Your task to perform on an android device: Open calendar and show me the third week of next month Image 0: 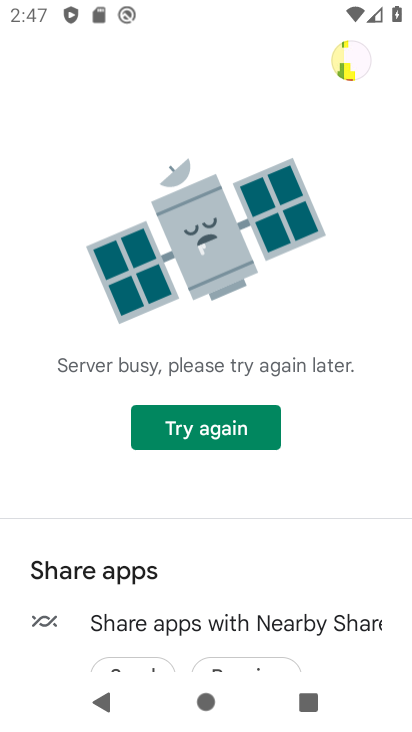
Step 0: press home button
Your task to perform on an android device: Open calendar and show me the third week of next month Image 1: 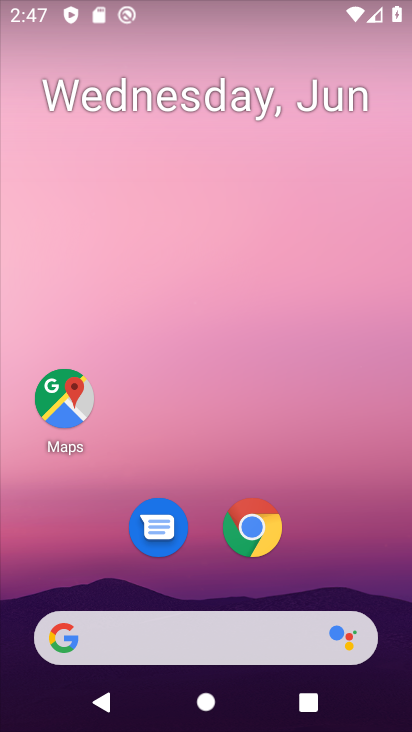
Step 1: drag from (26, 545) to (193, 266)
Your task to perform on an android device: Open calendar and show me the third week of next month Image 2: 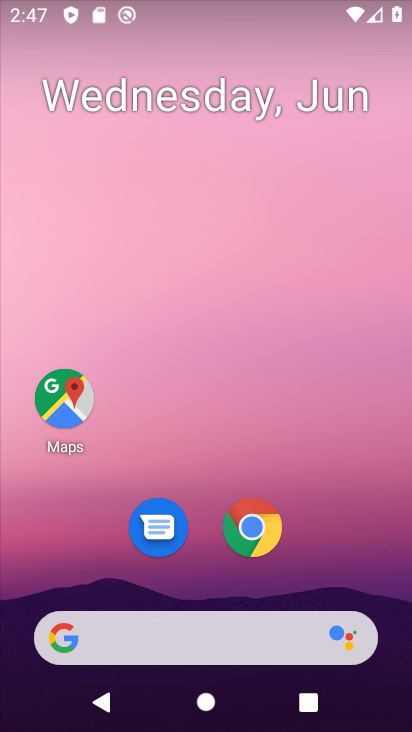
Step 2: drag from (337, 604) to (296, 99)
Your task to perform on an android device: Open calendar and show me the third week of next month Image 3: 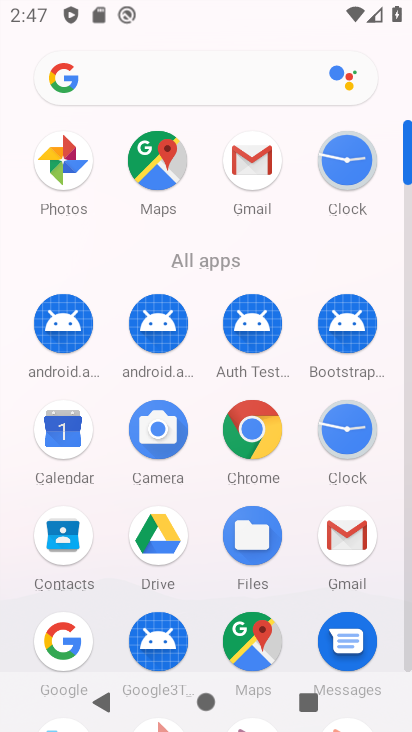
Step 3: click (37, 444)
Your task to perform on an android device: Open calendar and show me the third week of next month Image 4: 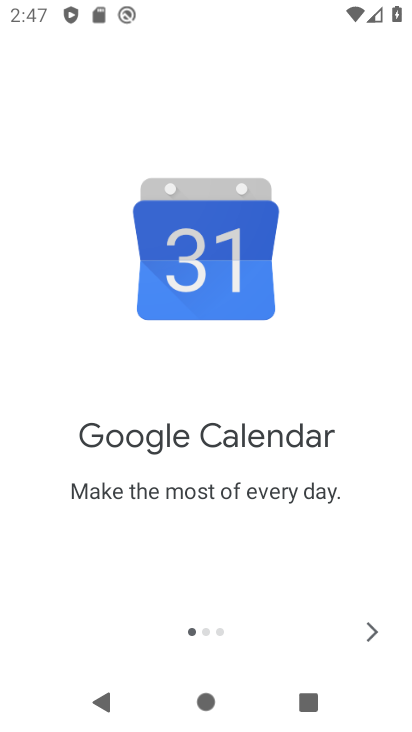
Step 4: click (380, 625)
Your task to perform on an android device: Open calendar and show me the third week of next month Image 5: 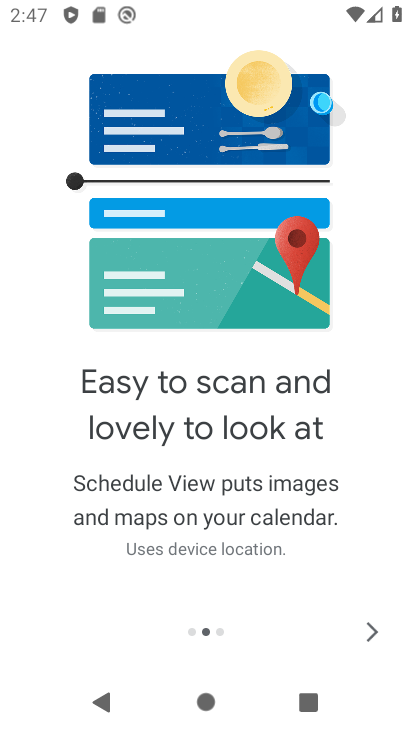
Step 5: click (380, 625)
Your task to perform on an android device: Open calendar and show me the third week of next month Image 6: 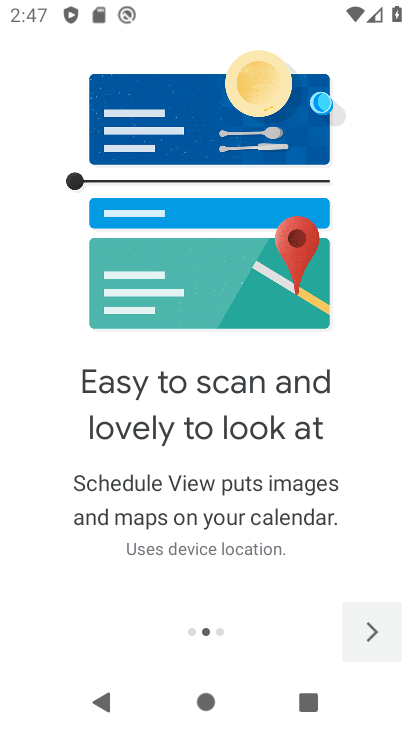
Step 6: click (380, 625)
Your task to perform on an android device: Open calendar and show me the third week of next month Image 7: 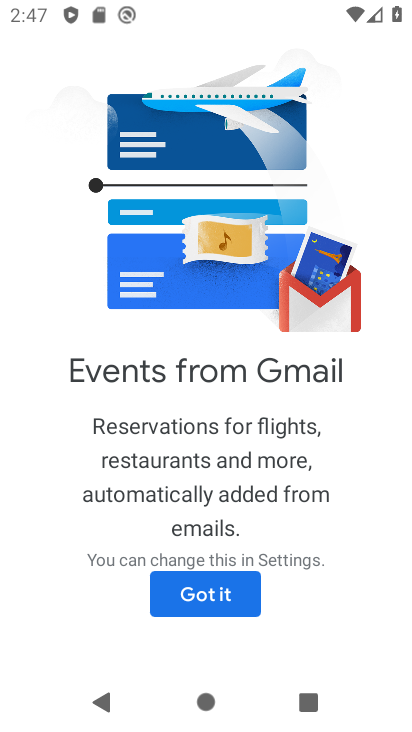
Step 7: click (229, 598)
Your task to perform on an android device: Open calendar and show me the third week of next month Image 8: 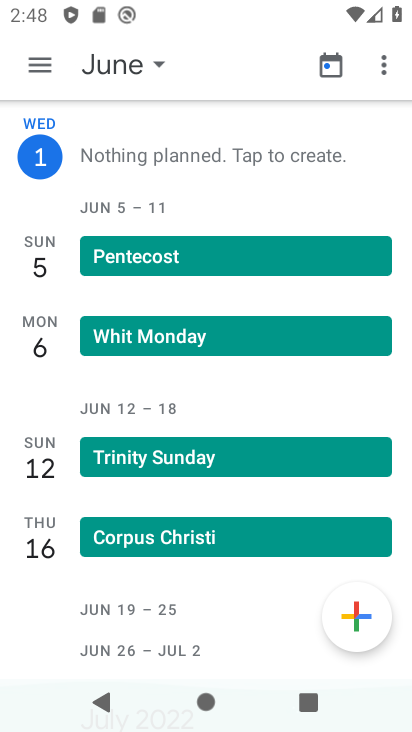
Step 8: click (144, 70)
Your task to perform on an android device: Open calendar and show me the third week of next month Image 9: 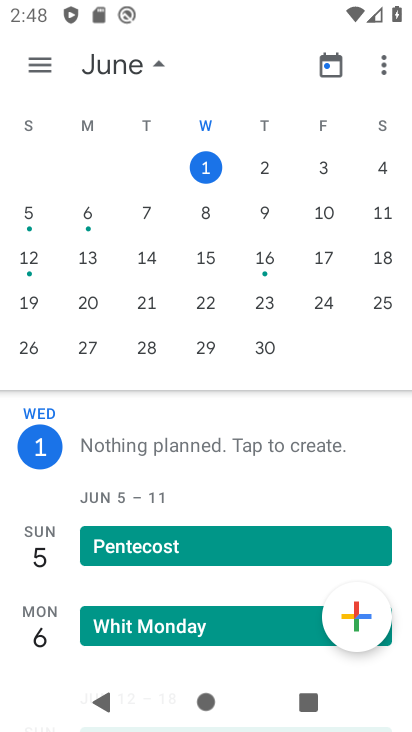
Step 9: drag from (323, 251) to (59, 281)
Your task to perform on an android device: Open calendar and show me the third week of next month Image 10: 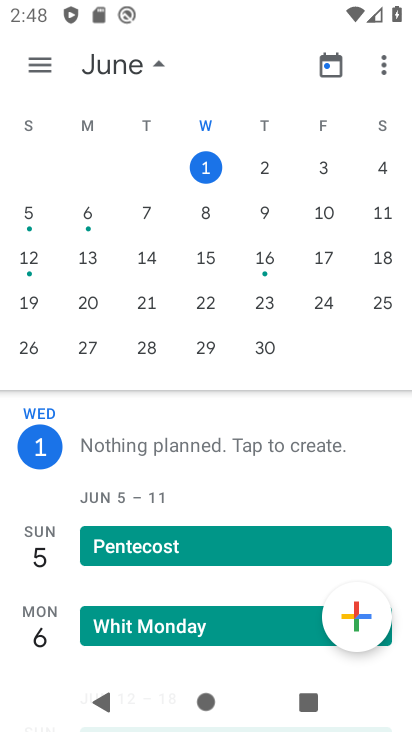
Step 10: drag from (381, 278) to (36, 684)
Your task to perform on an android device: Open calendar and show me the third week of next month Image 11: 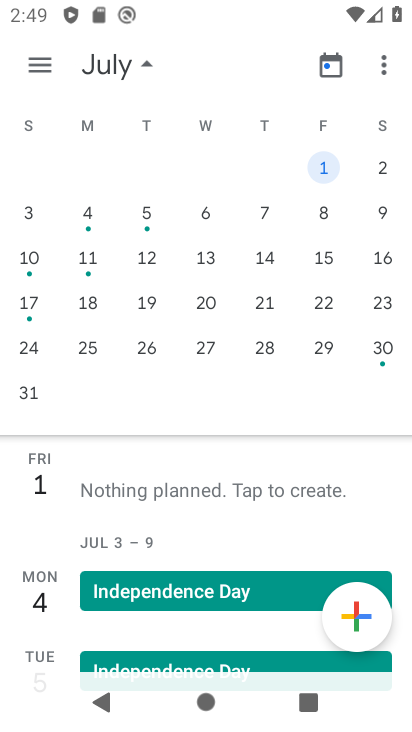
Step 11: click (321, 257)
Your task to perform on an android device: Open calendar and show me the third week of next month Image 12: 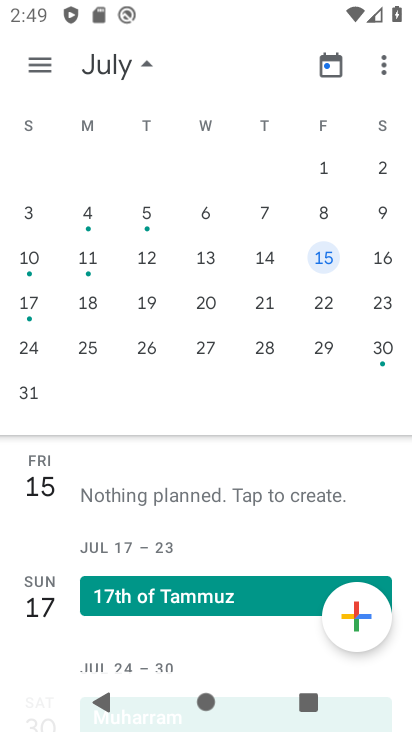
Step 12: task complete